Your task to perform on an android device: Go to Wikipedia Image 0: 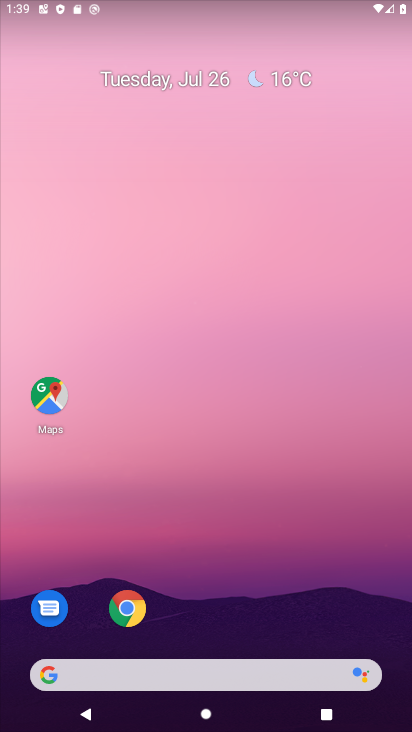
Step 0: drag from (301, 624) to (264, 189)
Your task to perform on an android device: Go to Wikipedia Image 1: 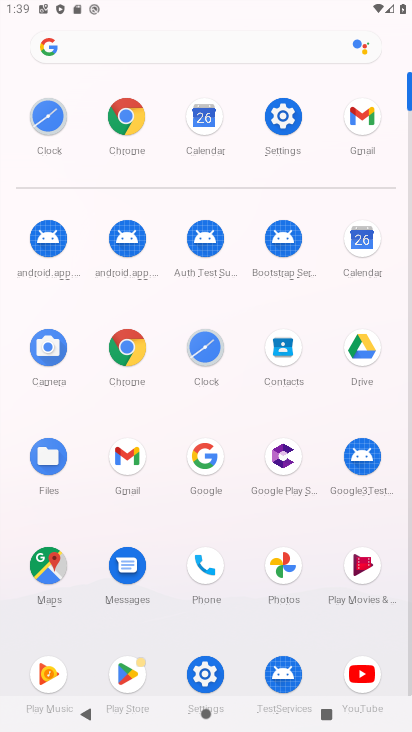
Step 1: click (109, 147)
Your task to perform on an android device: Go to Wikipedia Image 2: 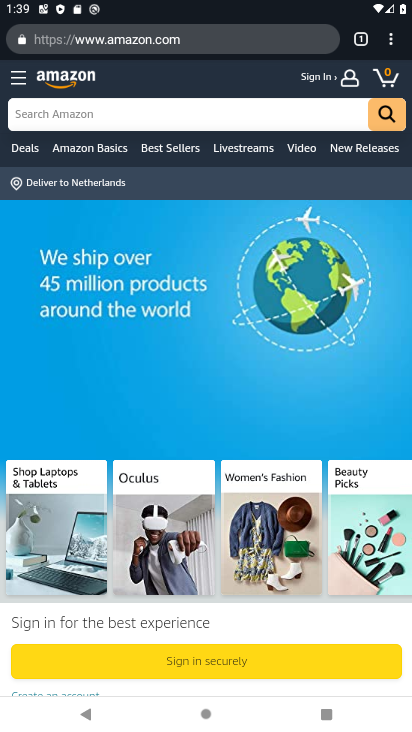
Step 2: click (192, 45)
Your task to perform on an android device: Go to Wikipedia Image 3: 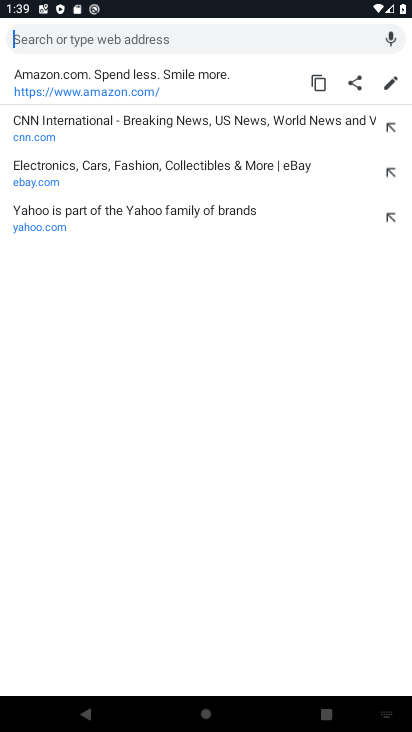
Step 3: type "wikipedia"
Your task to perform on an android device: Go to Wikipedia Image 4: 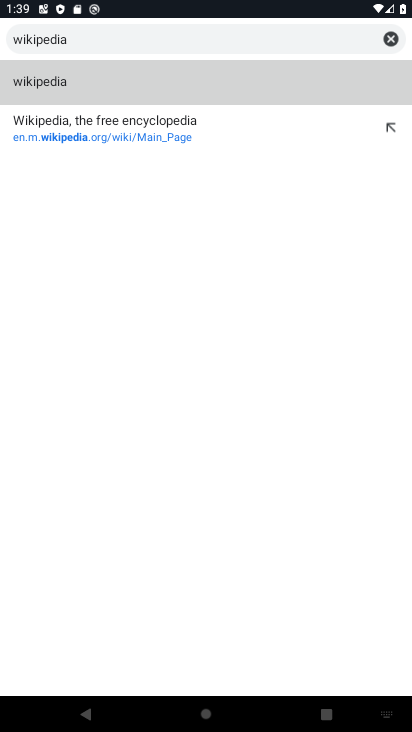
Step 4: click (235, 112)
Your task to perform on an android device: Go to Wikipedia Image 5: 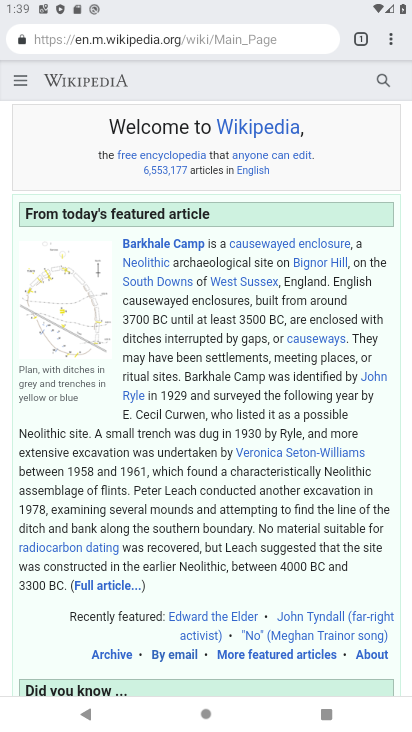
Step 5: task complete